Your task to perform on an android device: delete the emails in spam in the gmail app Image 0: 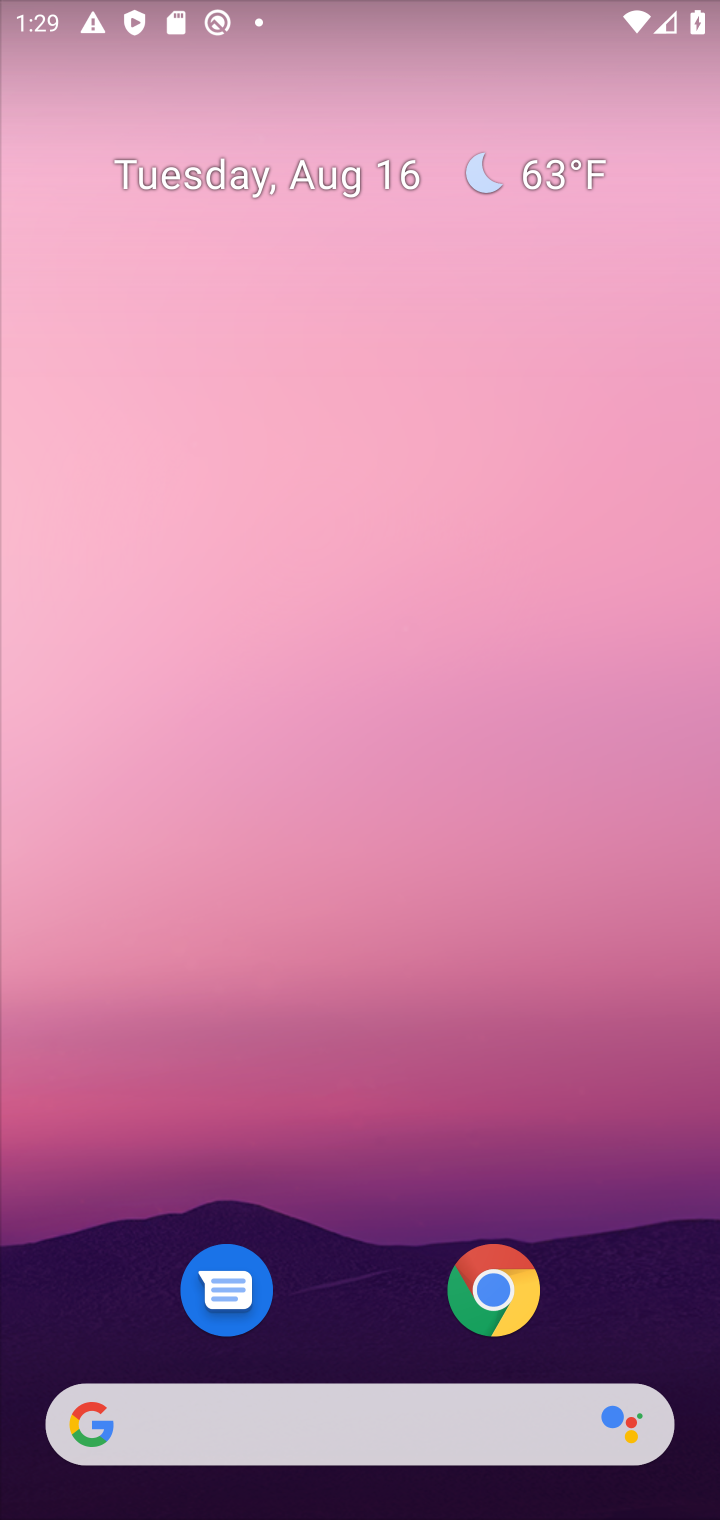
Step 0: press home button
Your task to perform on an android device: delete the emails in spam in the gmail app Image 1: 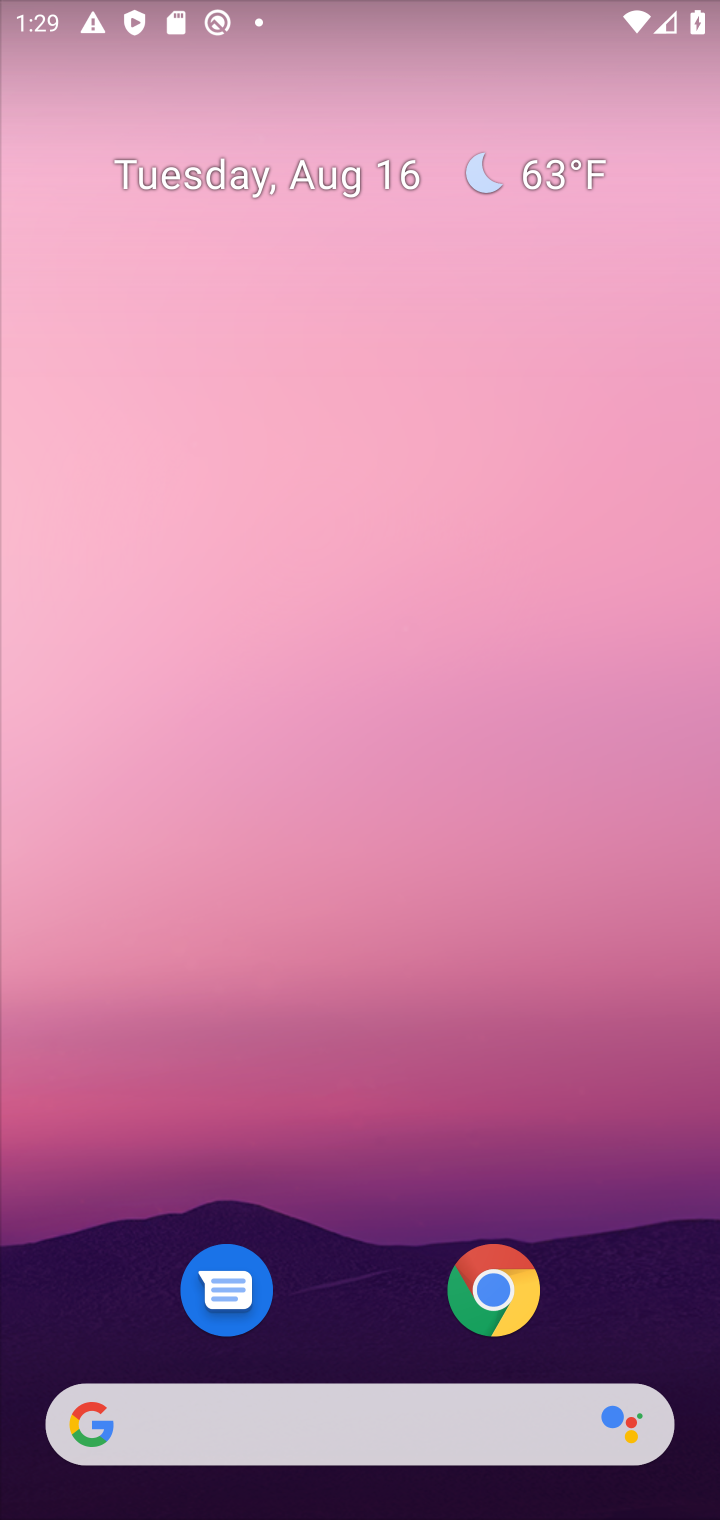
Step 1: drag from (283, 505) to (371, 130)
Your task to perform on an android device: delete the emails in spam in the gmail app Image 2: 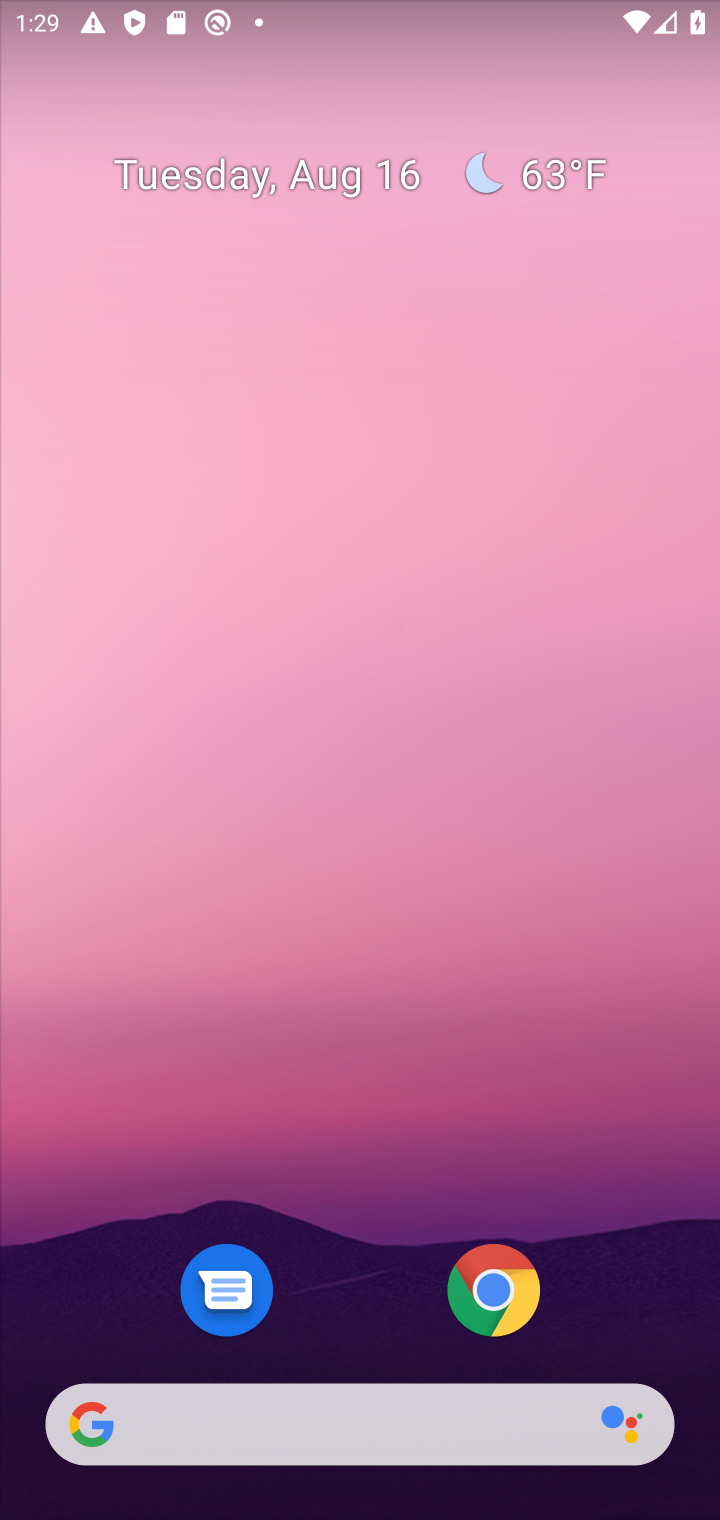
Step 2: drag from (221, 513) to (369, 46)
Your task to perform on an android device: delete the emails in spam in the gmail app Image 3: 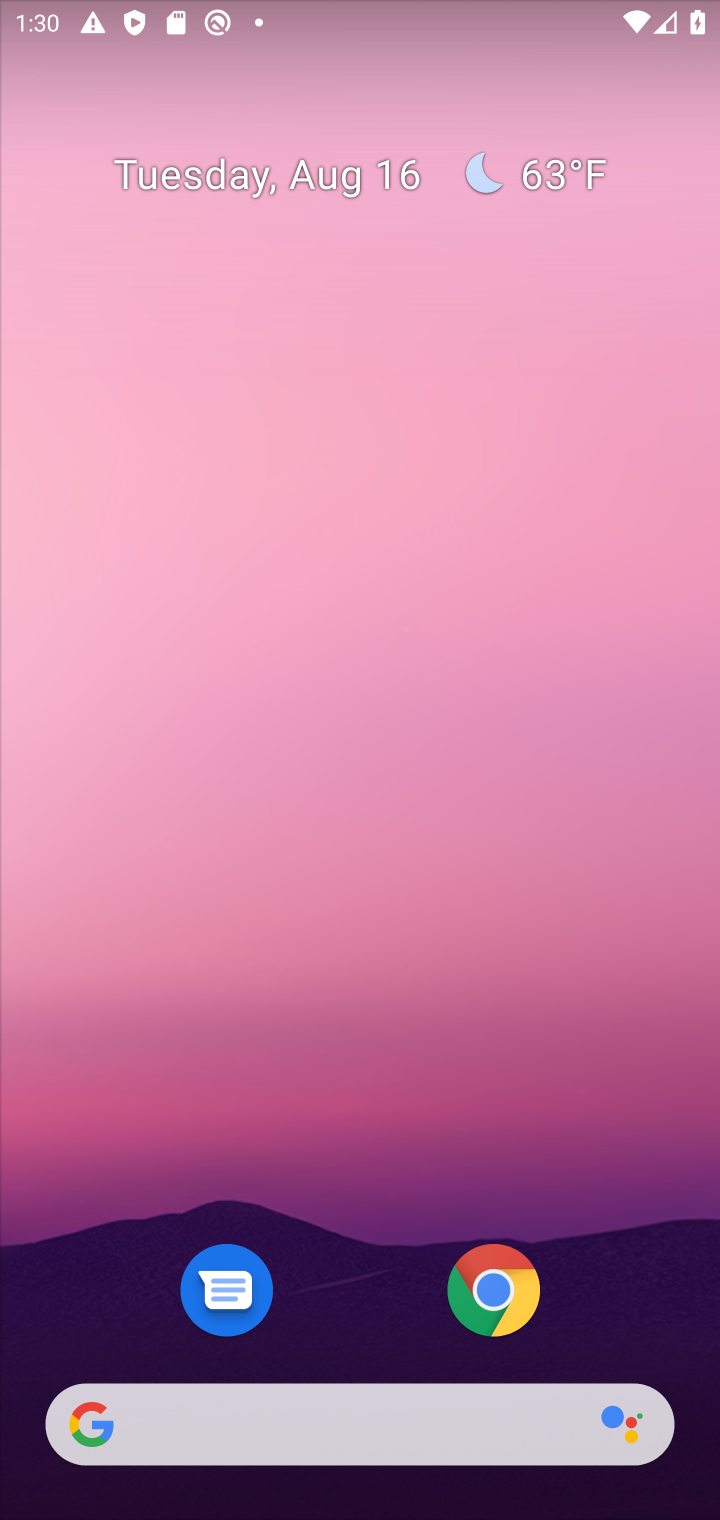
Step 3: drag from (182, 819) to (570, 34)
Your task to perform on an android device: delete the emails in spam in the gmail app Image 4: 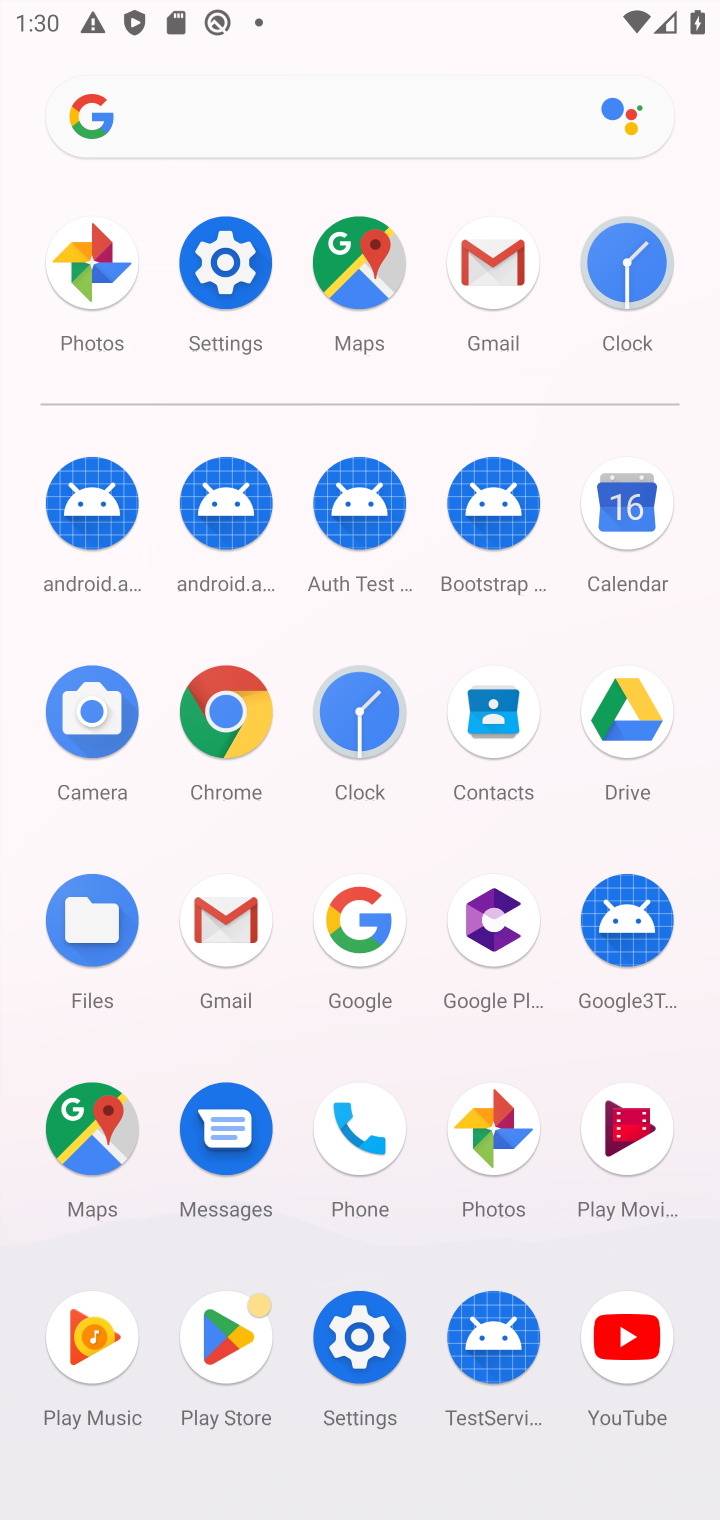
Step 4: click (204, 888)
Your task to perform on an android device: delete the emails in spam in the gmail app Image 5: 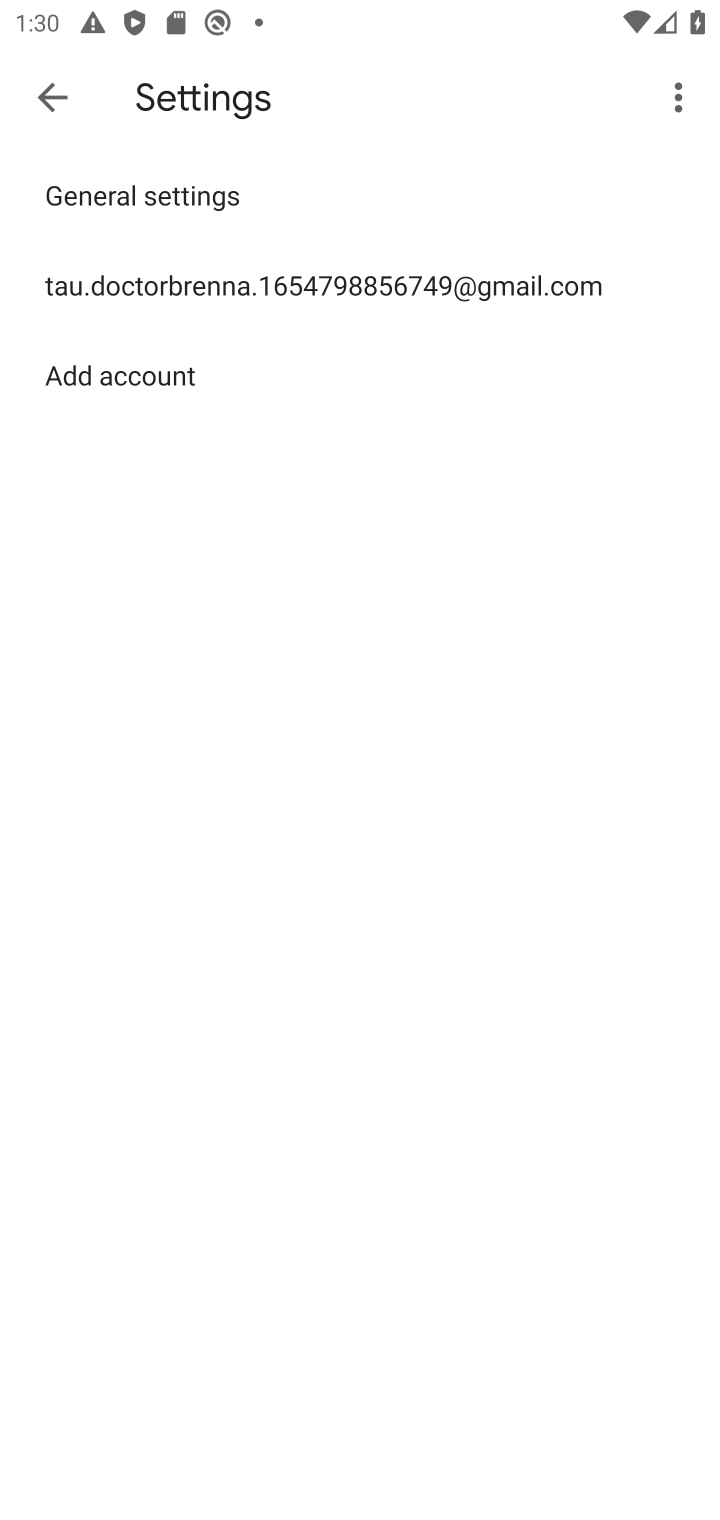
Step 5: click (58, 90)
Your task to perform on an android device: delete the emails in spam in the gmail app Image 6: 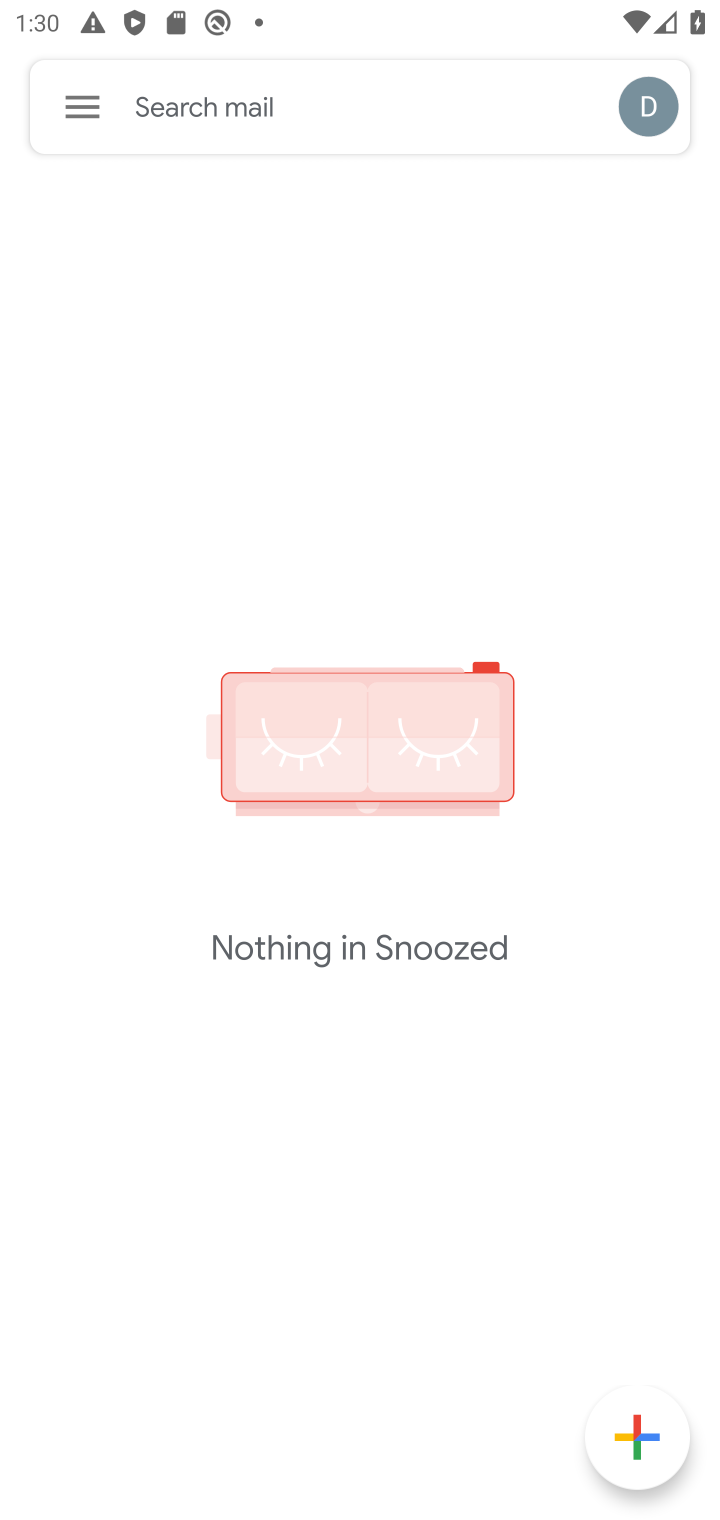
Step 6: click (76, 114)
Your task to perform on an android device: delete the emails in spam in the gmail app Image 7: 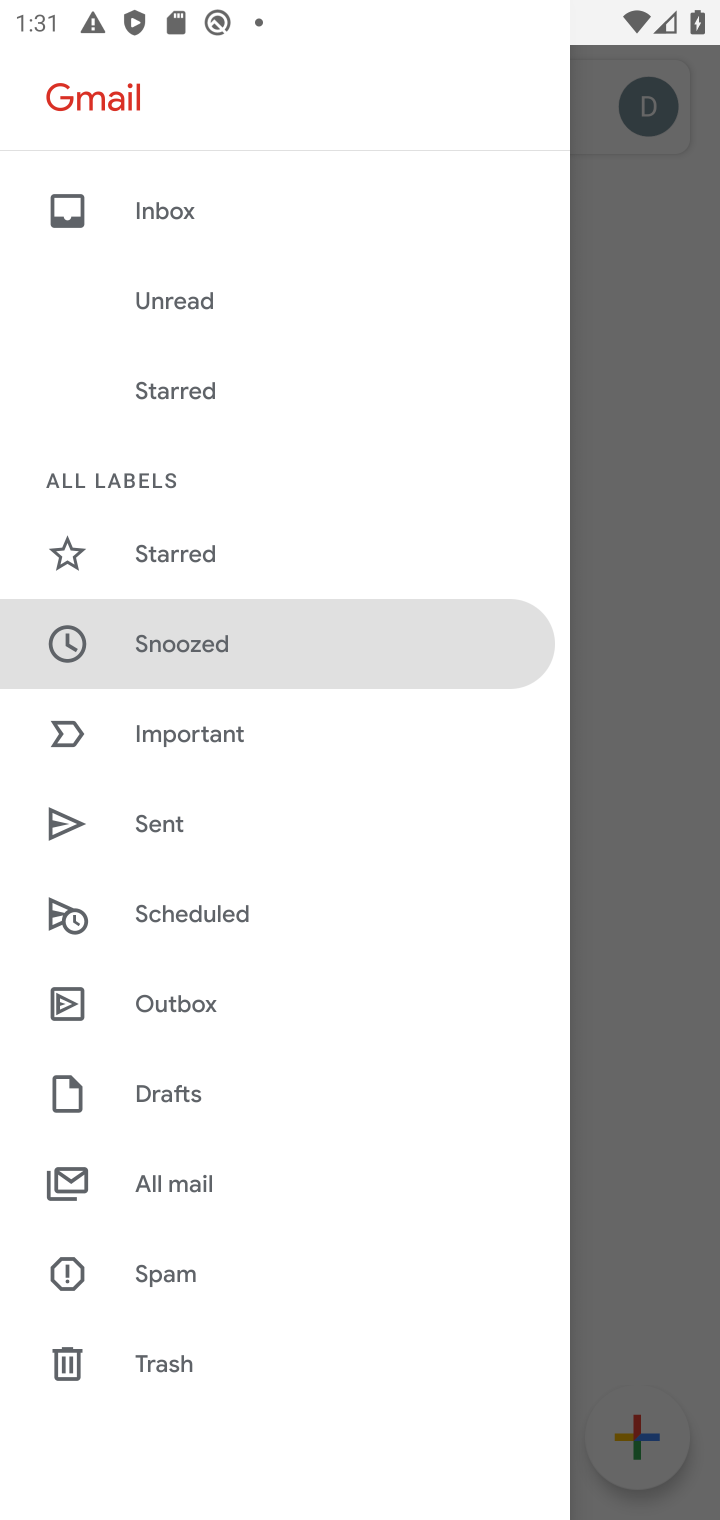
Step 7: task complete